Your task to perform on an android device: turn vacation reply on in the gmail app Image 0: 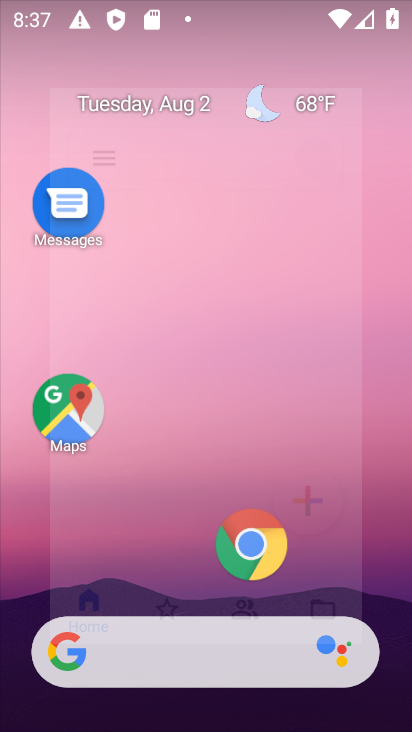
Step 0: drag from (133, 626) to (128, 315)
Your task to perform on an android device: turn vacation reply on in the gmail app Image 1: 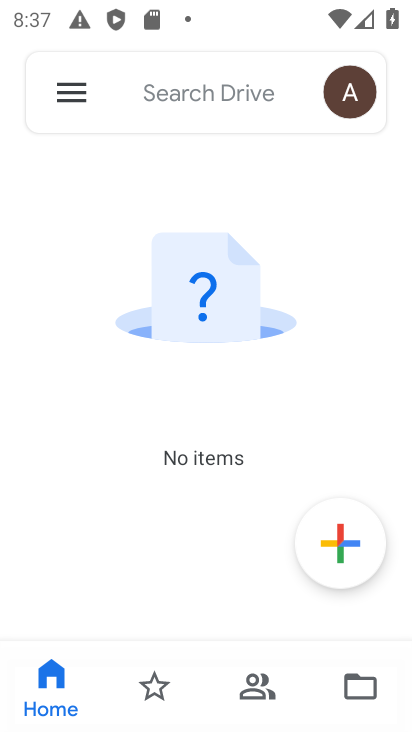
Step 1: press home button
Your task to perform on an android device: turn vacation reply on in the gmail app Image 2: 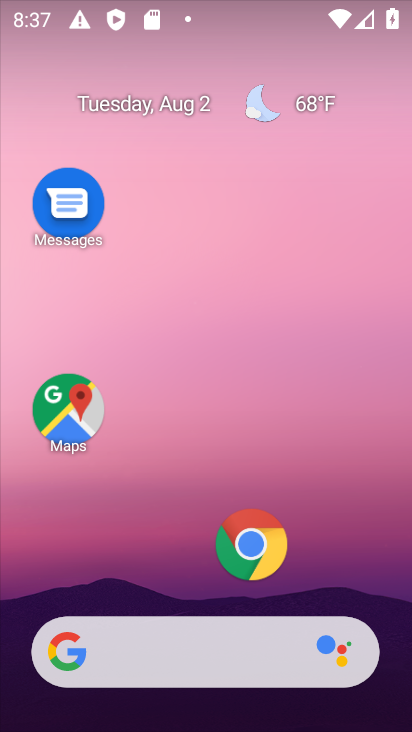
Step 2: drag from (203, 611) to (155, 259)
Your task to perform on an android device: turn vacation reply on in the gmail app Image 3: 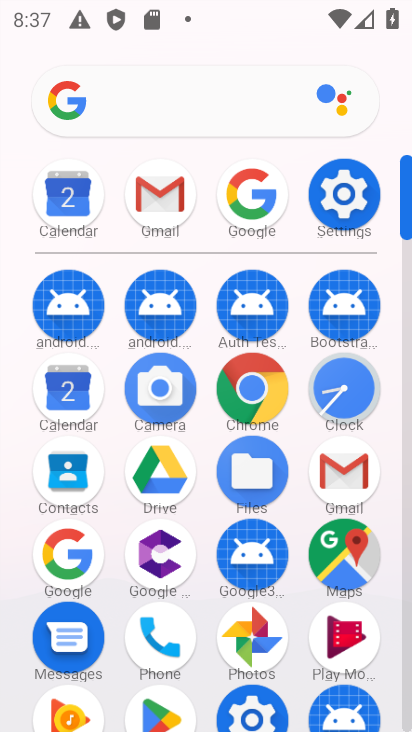
Step 3: click (367, 463)
Your task to perform on an android device: turn vacation reply on in the gmail app Image 4: 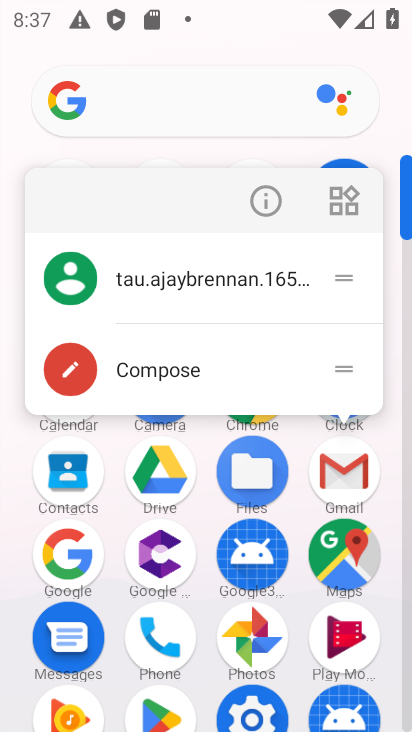
Step 4: click (344, 478)
Your task to perform on an android device: turn vacation reply on in the gmail app Image 5: 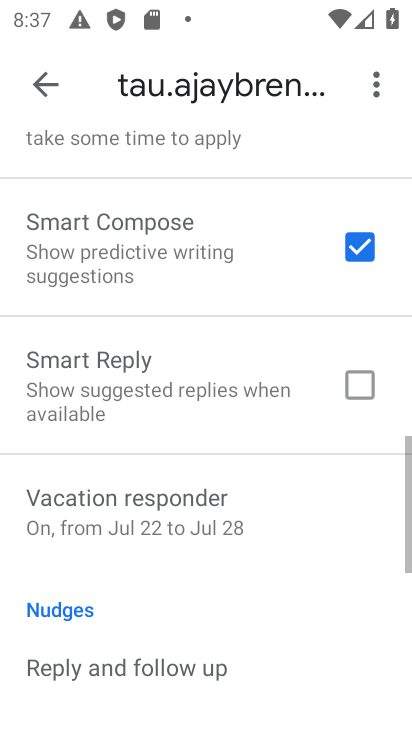
Step 5: click (43, 86)
Your task to perform on an android device: turn vacation reply on in the gmail app Image 6: 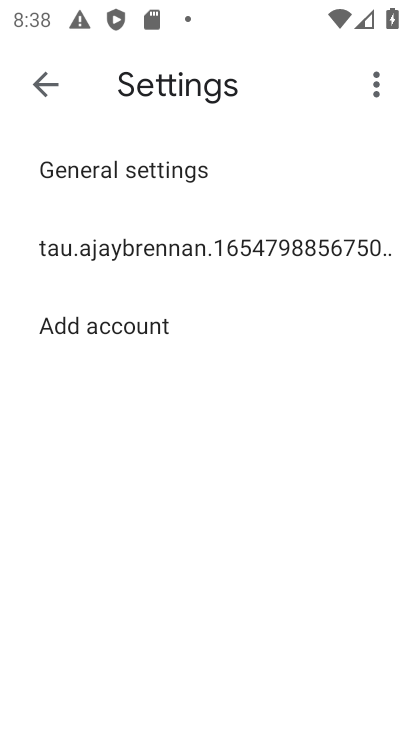
Step 6: click (43, 88)
Your task to perform on an android device: turn vacation reply on in the gmail app Image 7: 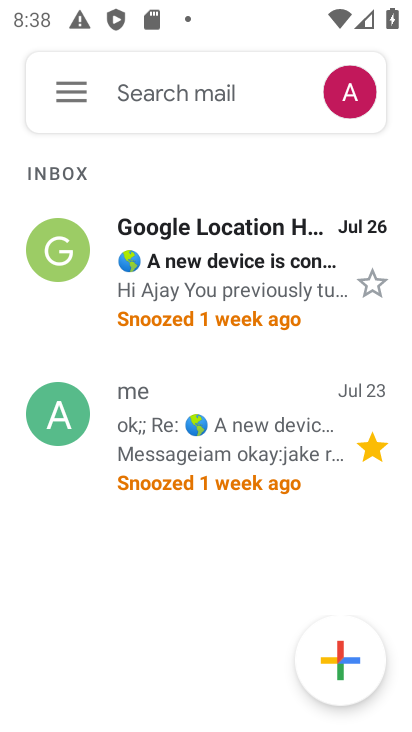
Step 7: click (73, 96)
Your task to perform on an android device: turn vacation reply on in the gmail app Image 8: 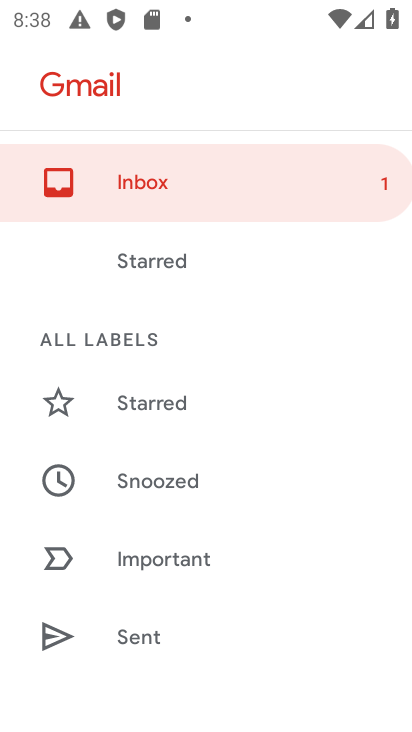
Step 8: drag from (163, 617) to (122, 144)
Your task to perform on an android device: turn vacation reply on in the gmail app Image 9: 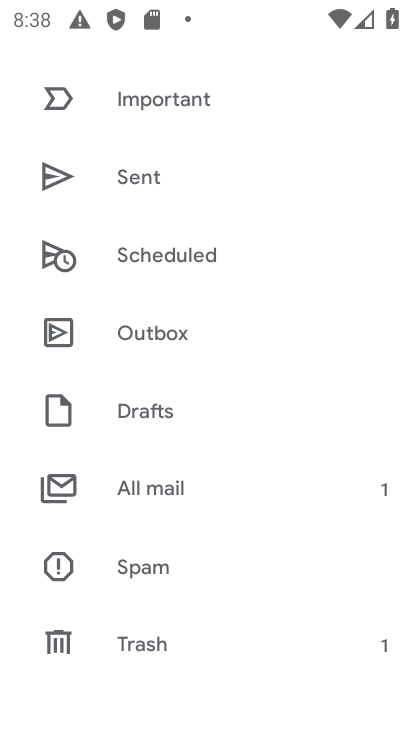
Step 9: drag from (165, 628) to (118, 294)
Your task to perform on an android device: turn vacation reply on in the gmail app Image 10: 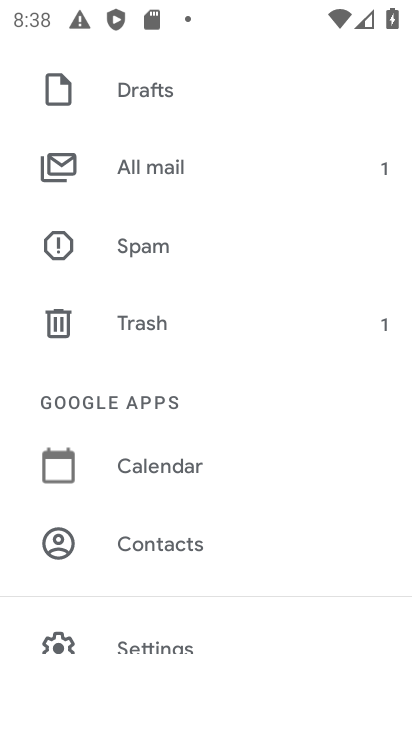
Step 10: drag from (113, 635) to (70, 314)
Your task to perform on an android device: turn vacation reply on in the gmail app Image 11: 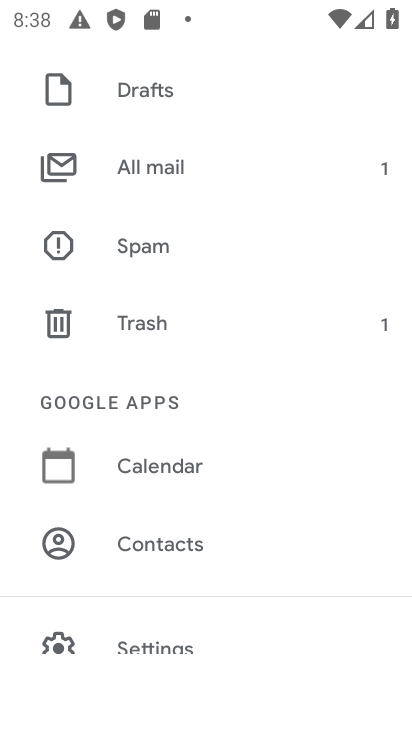
Step 11: click (137, 649)
Your task to perform on an android device: turn vacation reply on in the gmail app Image 12: 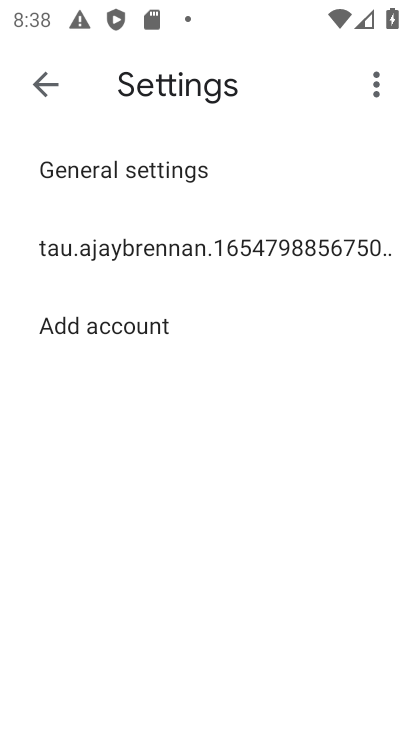
Step 12: click (136, 252)
Your task to perform on an android device: turn vacation reply on in the gmail app Image 13: 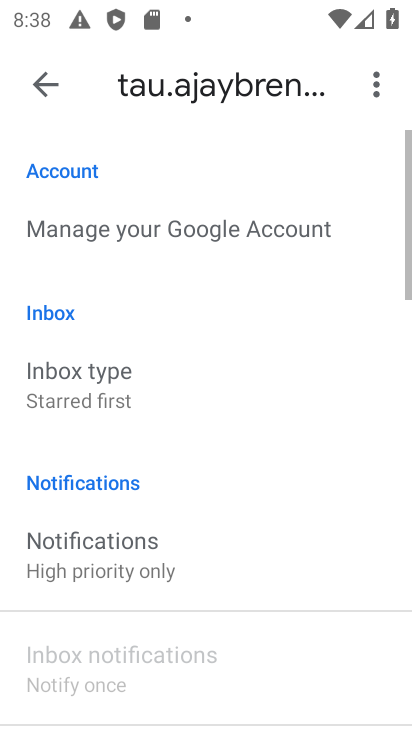
Step 13: drag from (113, 648) to (72, 328)
Your task to perform on an android device: turn vacation reply on in the gmail app Image 14: 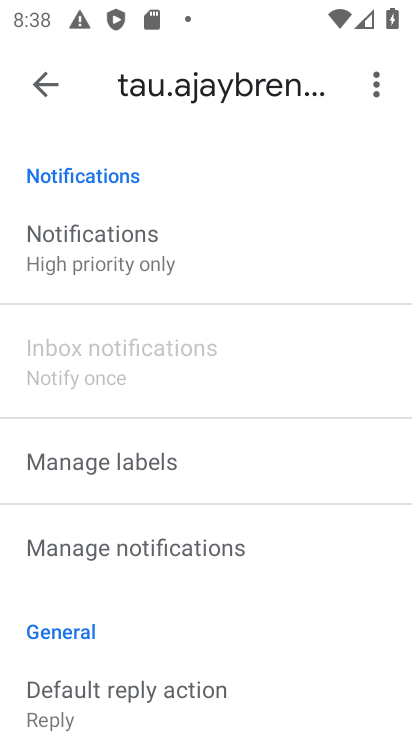
Step 14: drag from (115, 668) to (101, 318)
Your task to perform on an android device: turn vacation reply on in the gmail app Image 15: 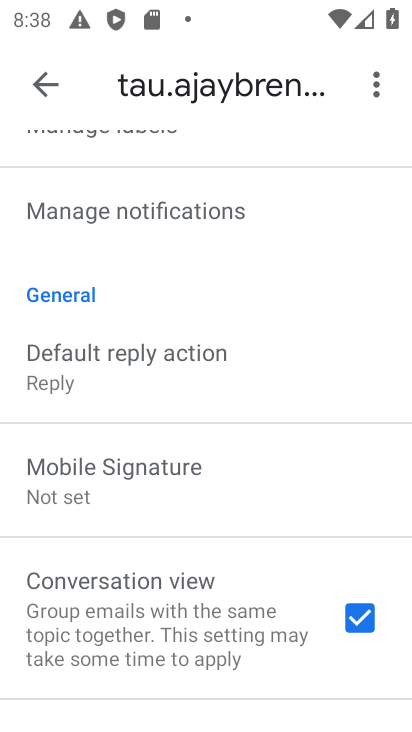
Step 15: drag from (83, 654) to (78, 300)
Your task to perform on an android device: turn vacation reply on in the gmail app Image 16: 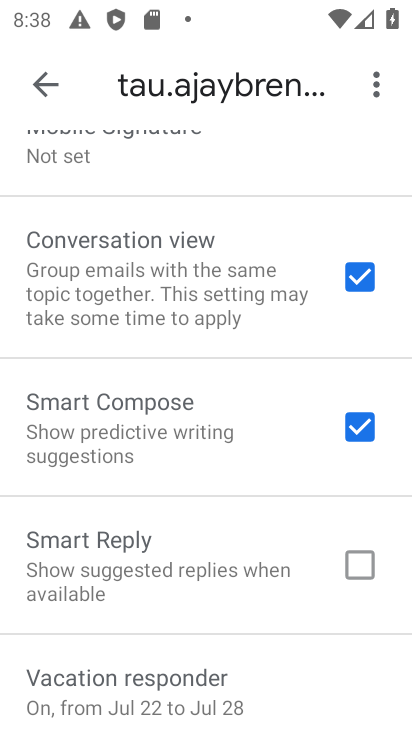
Step 16: click (111, 687)
Your task to perform on an android device: turn vacation reply on in the gmail app Image 17: 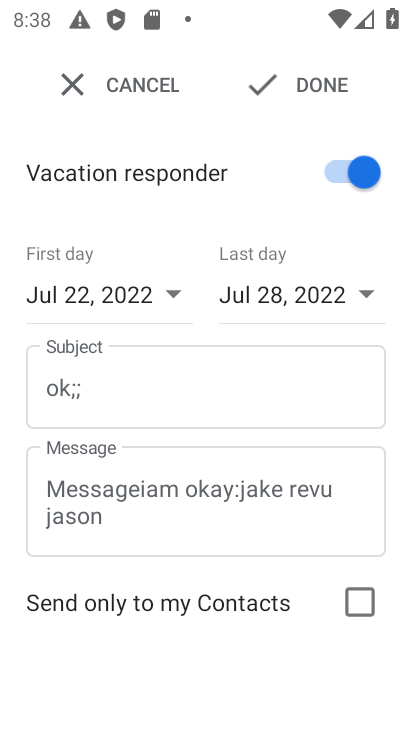
Step 17: click (339, 83)
Your task to perform on an android device: turn vacation reply on in the gmail app Image 18: 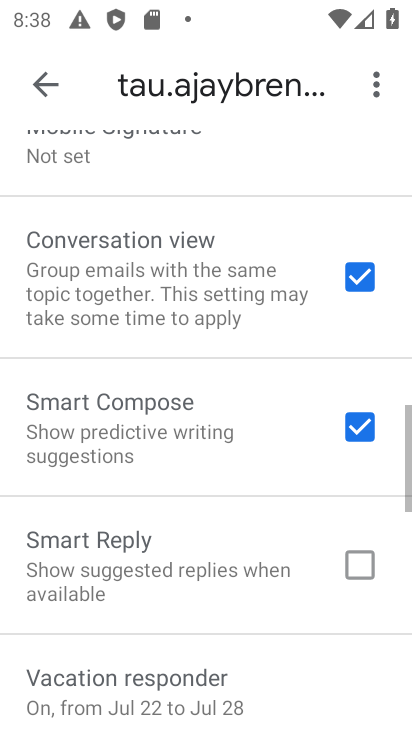
Step 18: task complete